Your task to perform on an android device: Open wifi settings Image 0: 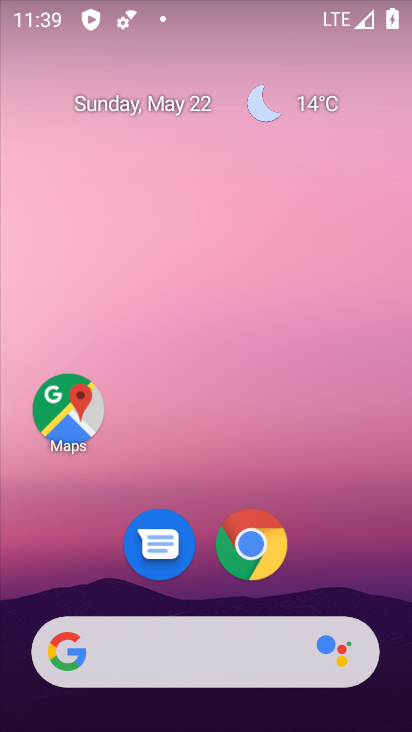
Step 0: drag from (302, 606) to (285, 203)
Your task to perform on an android device: Open wifi settings Image 1: 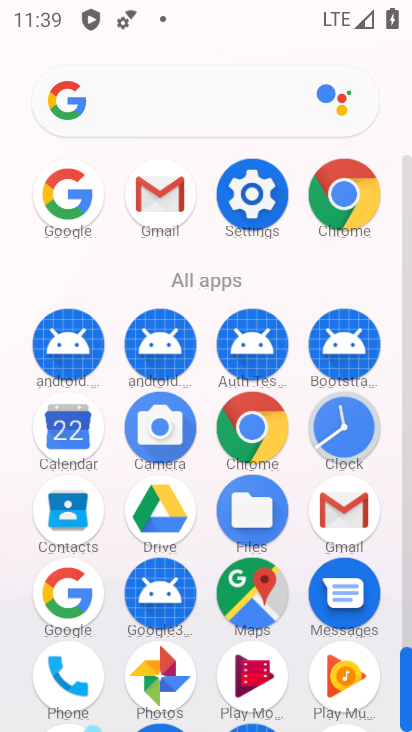
Step 1: click (253, 201)
Your task to perform on an android device: Open wifi settings Image 2: 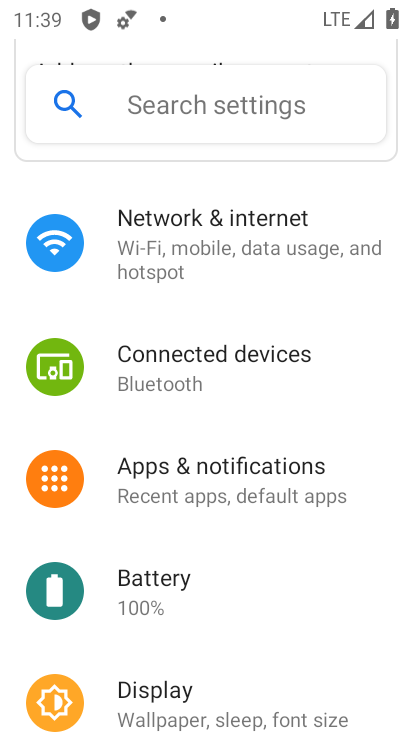
Step 2: click (197, 259)
Your task to perform on an android device: Open wifi settings Image 3: 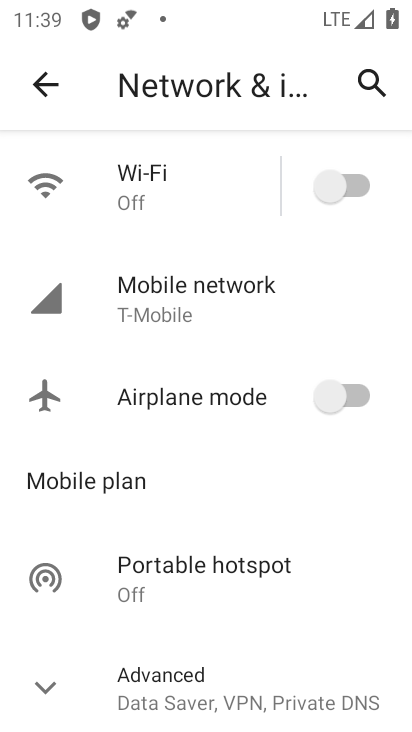
Step 3: drag from (196, 623) to (220, 277)
Your task to perform on an android device: Open wifi settings Image 4: 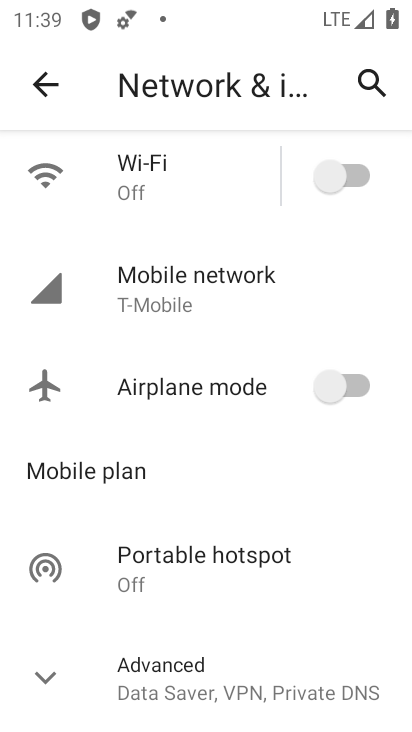
Step 4: click (142, 179)
Your task to perform on an android device: Open wifi settings Image 5: 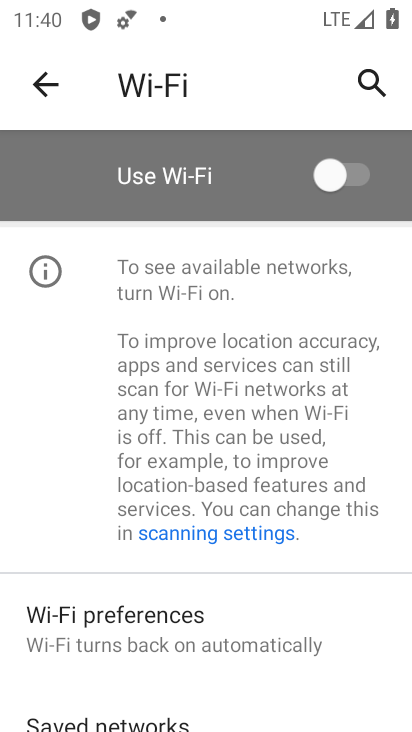
Step 5: task complete